Your task to perform on an android device: turn off improve location accuracy Image 0: 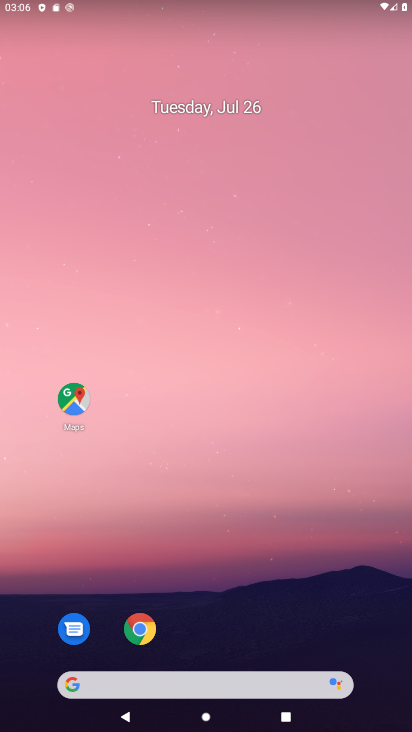
Step 0: press home button
Your task to perform on an android device: turn off improve location accuracy Image 1: 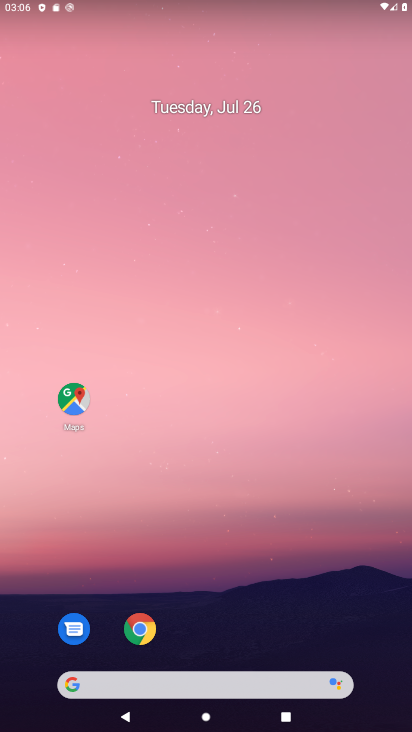
Step 1: drag from (274, 624) to (292, 38)
Your task to perform on an android device: turn off improve location accuracy Image 2: 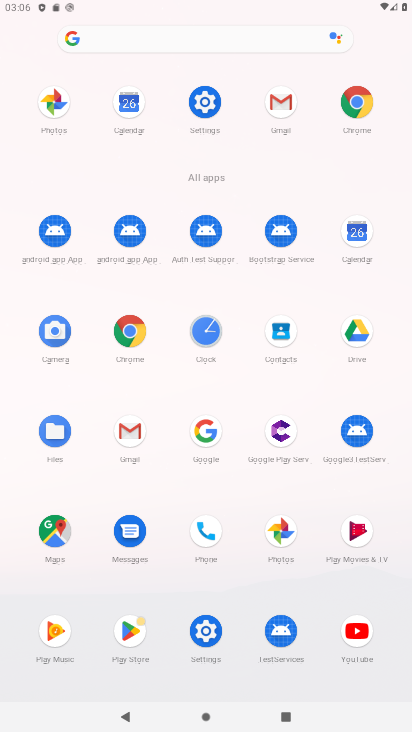
Step 2: click (186, 627)
Your task to perform on an android device: turn off improve location accuracy Image 3: 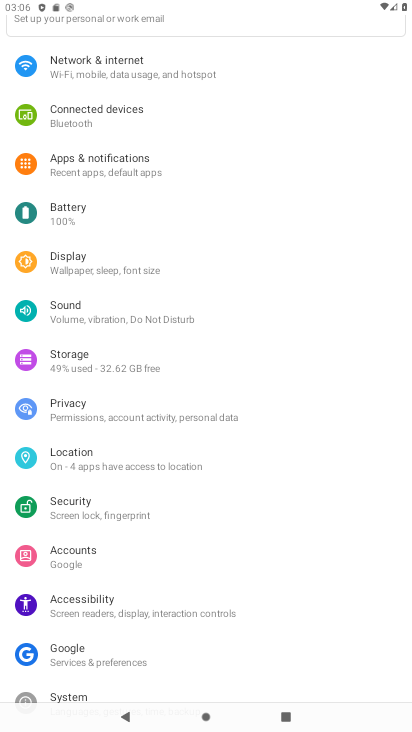
Step 3: click (138, 476)
Your task to perform on an android device: turn off improve location accuracy Image 4: 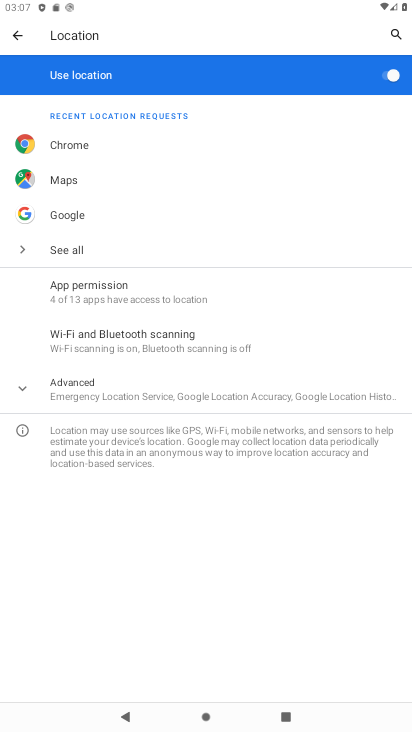
Step 4: click (60, 382)
Your task to perform on an android device: turn off improve location accuracy Image 5: 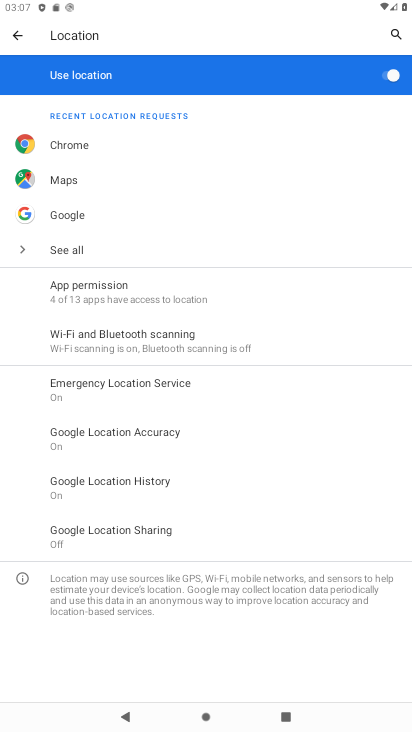
Step 5: click (81, 432)
Your task to perform on an android device: turn off improve location accuracy Image 6: 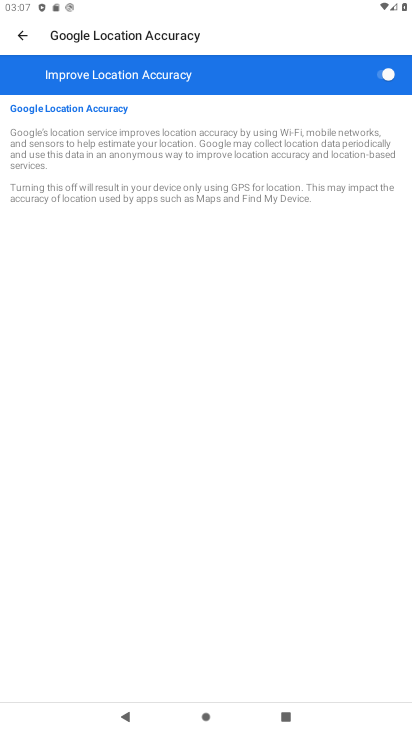
Step 6: click (342, 86)
Your task to perform on an android device: turn off improve location accuracy Image 7: 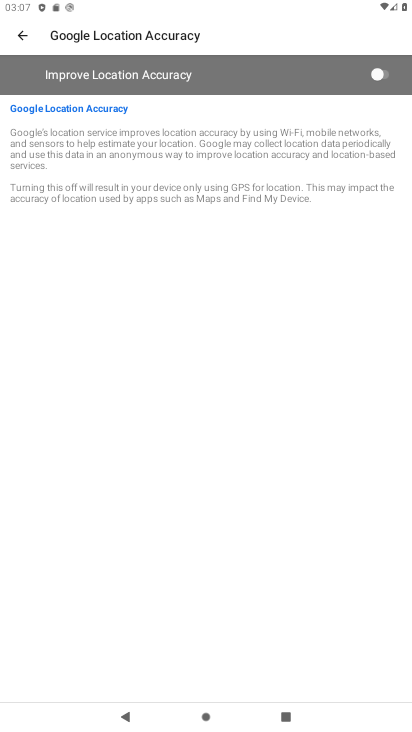
Step 7: task complete